Your task to perform on an android device: What is the recent news? Image 0: 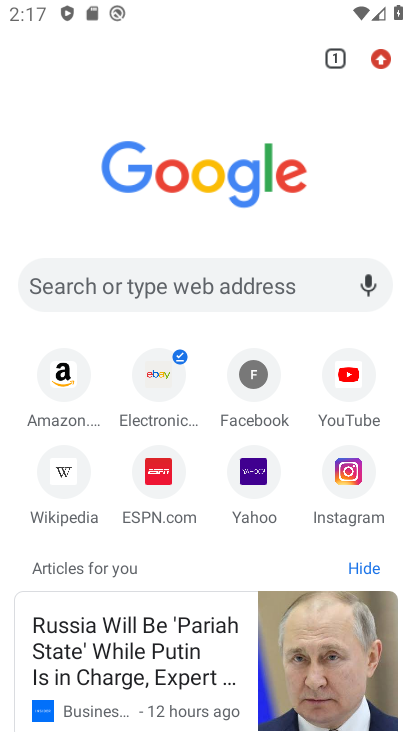
Step 0: drag from (123, 616) to (99, 205)
Your task to perform on an android device: What is the recent news? Image 1: 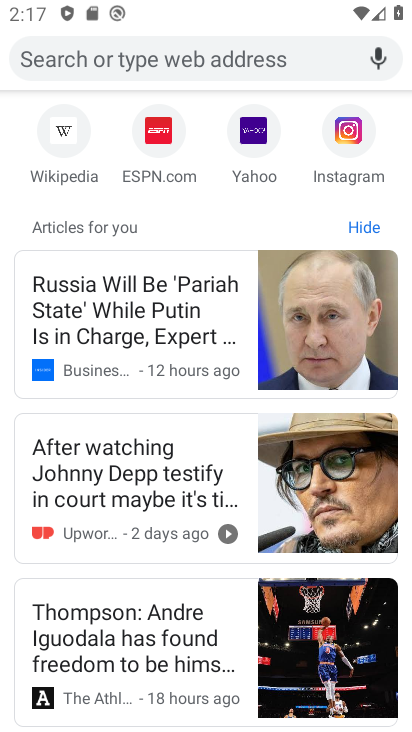
Step 1: task complete